Your task to perform on an android device: change your default location settings in chrome Image 0: 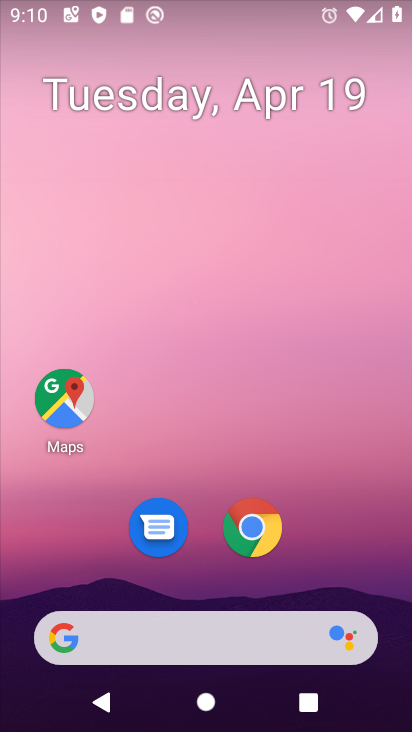
Step 0: drag from (344, 528) to (359, 208)
Your task to perform on an android device: change your default location settings in chrome Image 1: 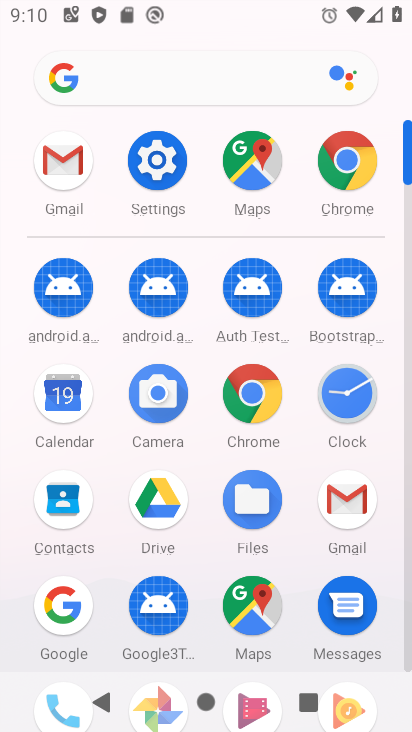
Step 1: click (344, 166)
Your task to perform on an android device: change your default location settings in chrome Image 2: 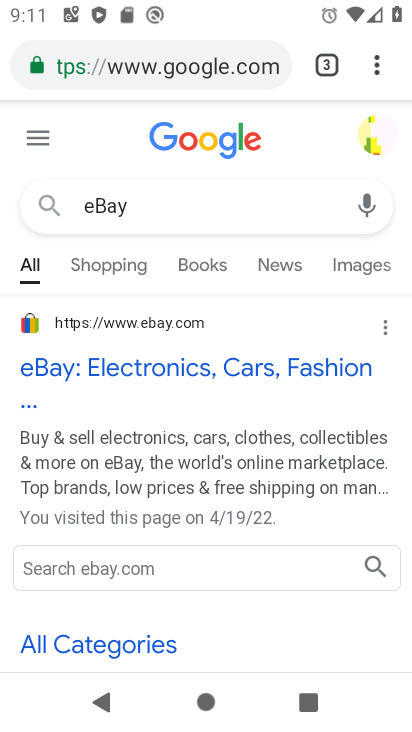
Step 2: click (381, 54)
Your task to perform on an android device: change your default location settings in chrome Image 3: 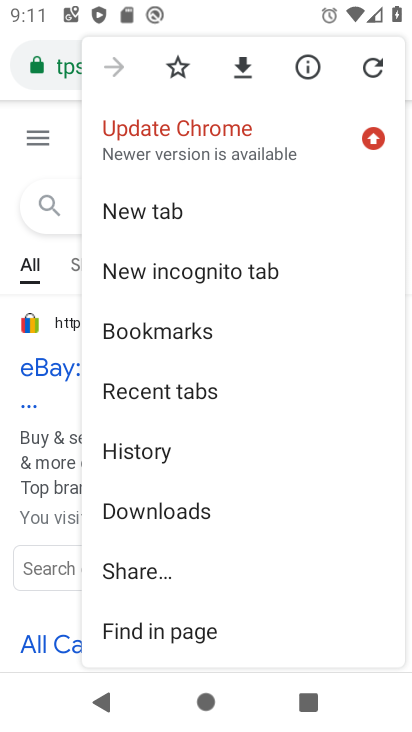
Step 3: drag from (221, 610) to (310, 253)
Your task to perform on an android device: change your default location settings in chrome Image 4: 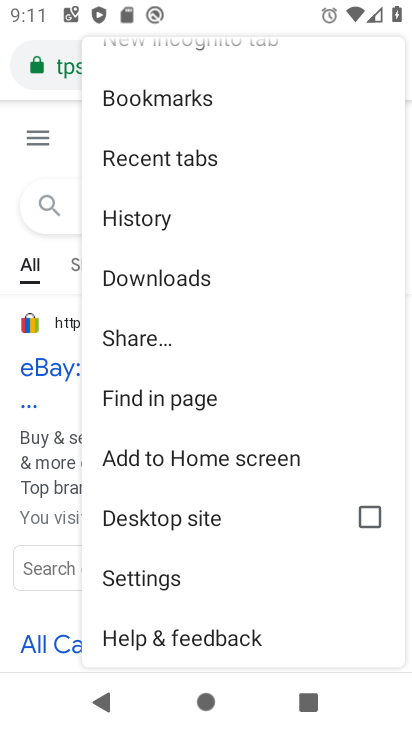
Step 4: click (130, 564)
Your task to perform on an android device: change your default location settings in chrome Image 5: 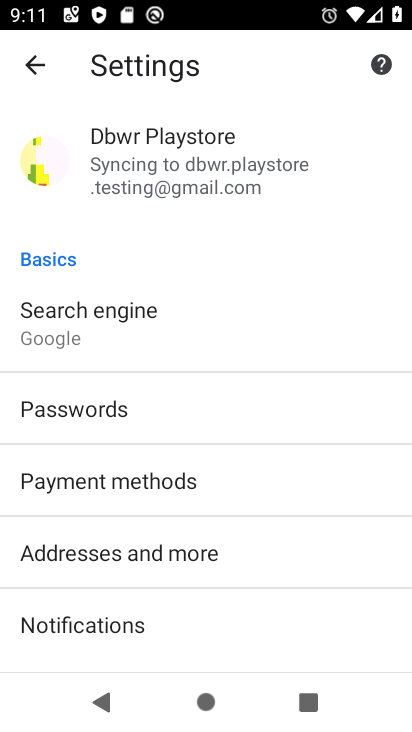
Step 5: drag from (178, 561) to (239, 230)
Your task to perform on an android device: change your default location settings in chrome Image 6: 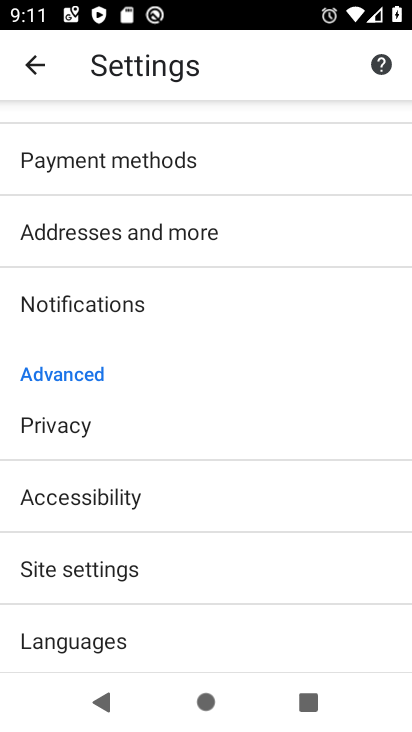
Step 6: drag from (80, 554) to (231, 225)
Your task to perform on an android device: change your default location settings in chrome Image 7: 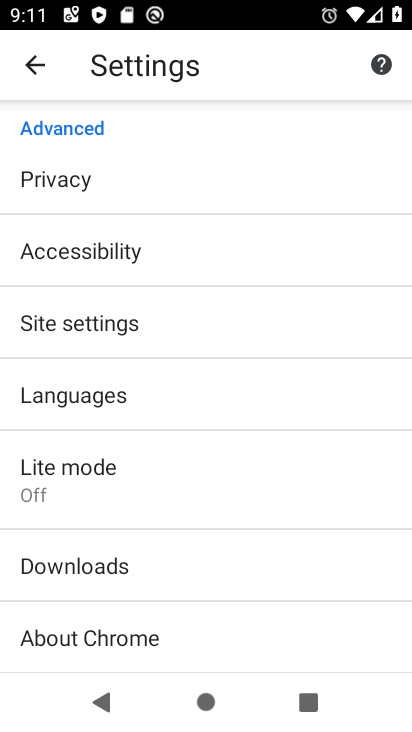
Step 7: click (184, 319)
Your task to perform on an android device: change your default location settings in chrome Image 8: 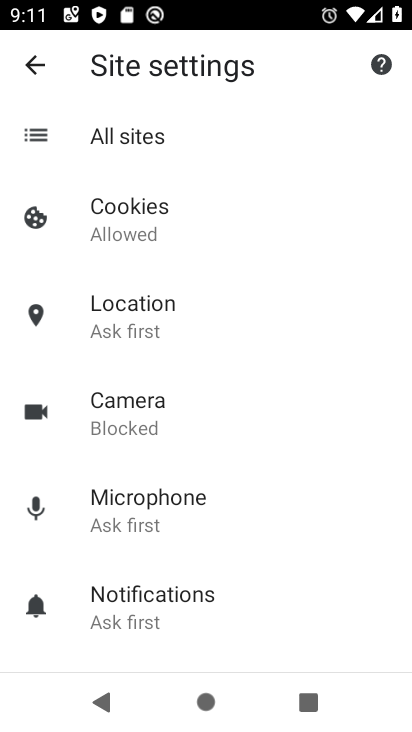
Step 8: click (184, 319)
Your task to perform on an android device: change your default location settings in chrome Image 9: 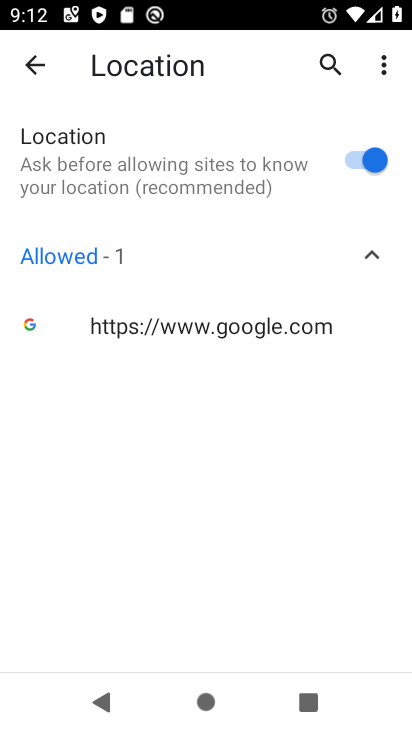
Step 9: task complete